Your task to perform on an android device: What's the weather? Image 0: 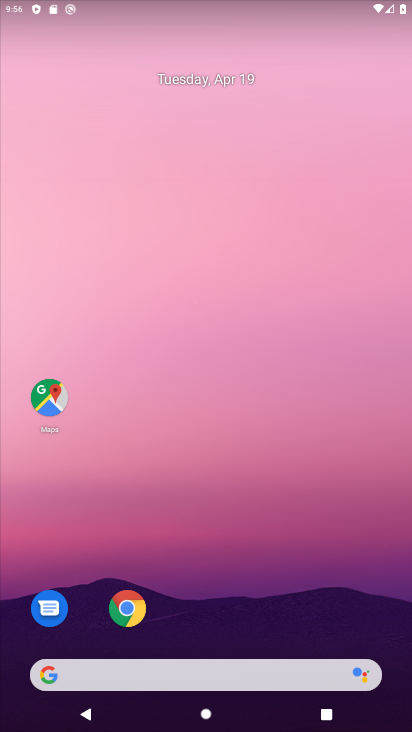
Step 0: drag from (288, 231) to (369, 235)
Your task to perform on an android device: What's the weather? Image 1: 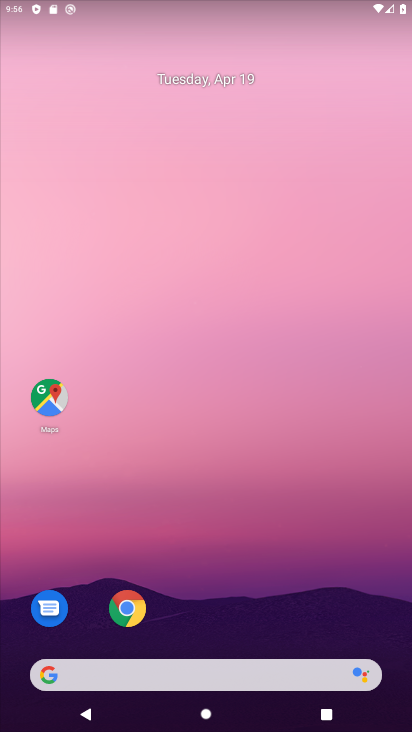
Step 1: drag from (223, 280) to (392, 258)
Your task to perform on an android device: What's the weather? Image 2: 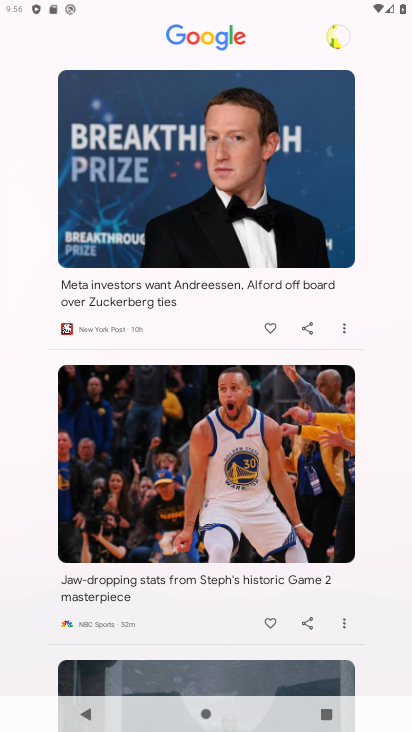
Step 2: drag from (251, 203) to (268, 492)
Your task to perform on an android device: What's the weather? Image 3: 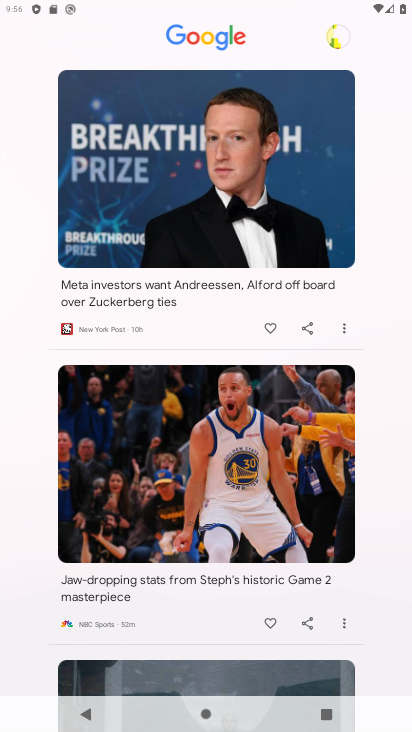
Step 3: click (236, 523)
Your task to perform on an android device: What's the weather? Image 4: 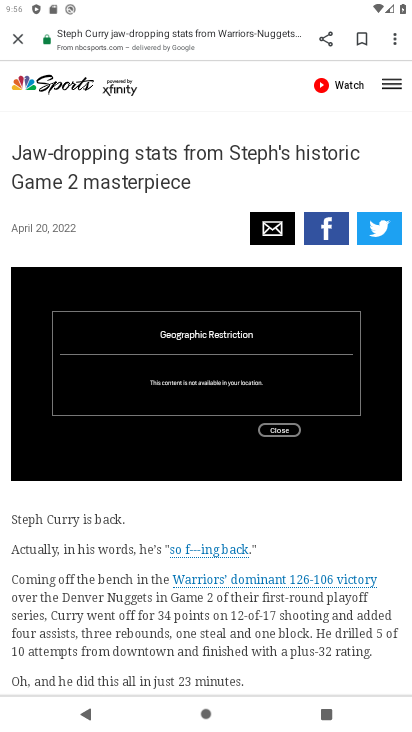
Step 4: task complete